Your task to perform on an android device: open chrome and create a bookmark for the current page Image 0: 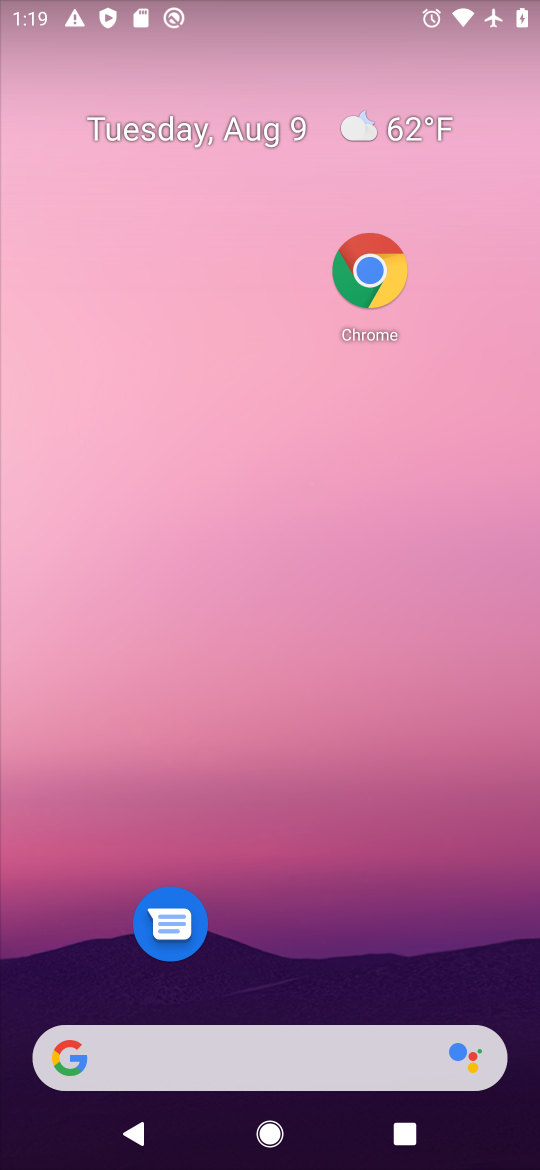
Step 0: click (351, 226)
Your task to perform on an android device: open chrome and create a bookmark for the current page Image 1: 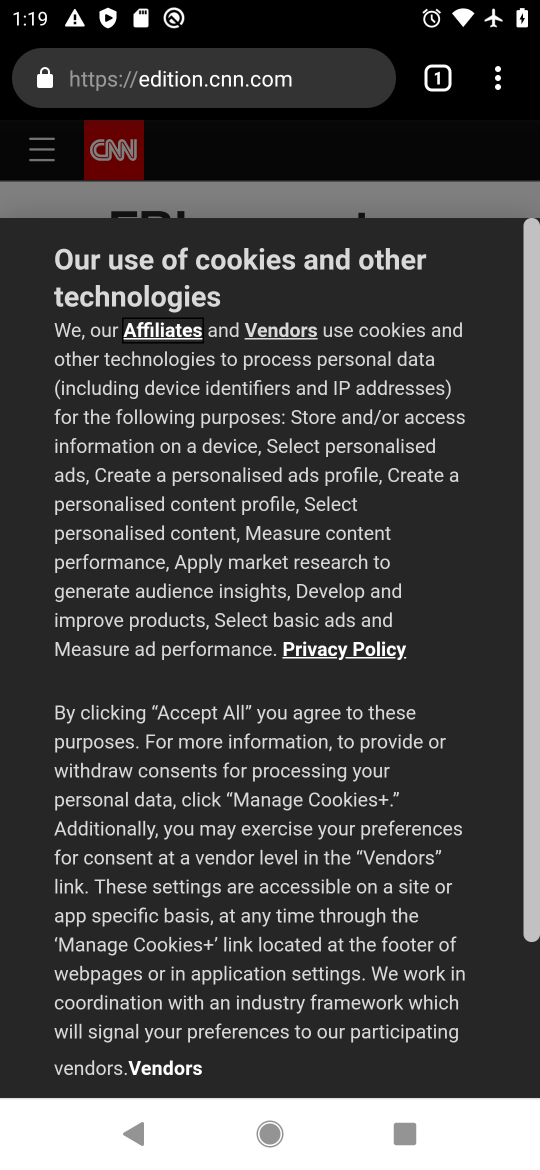
Step 1: click (501, 74)
Your task to perform on an android device: open chrome and create a bookmark for the current page Image 2: 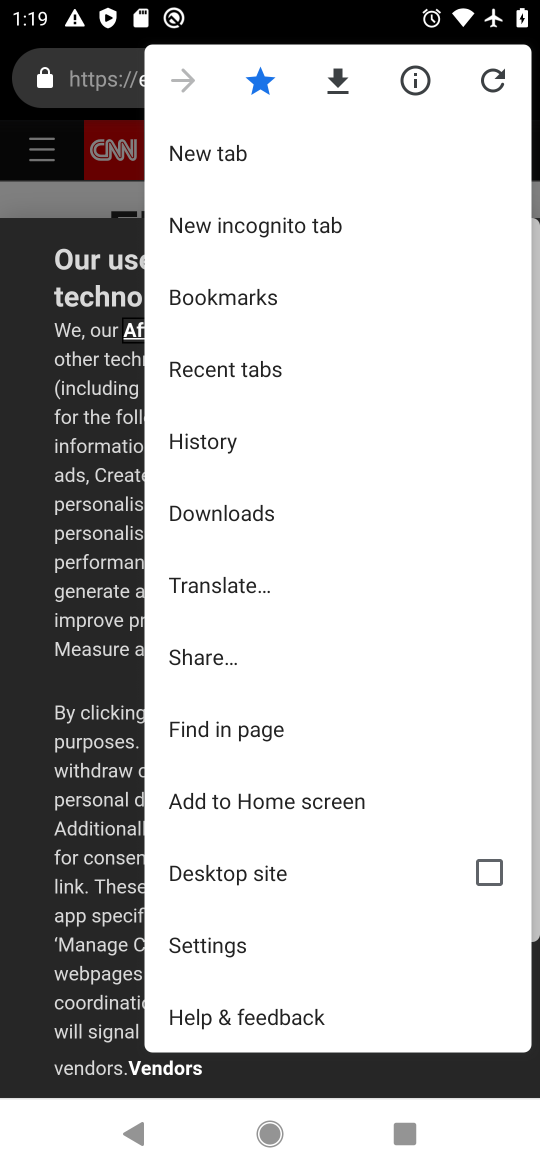
Step 2: task complete